Your task to perform on an android device: show emergency info Image 0: 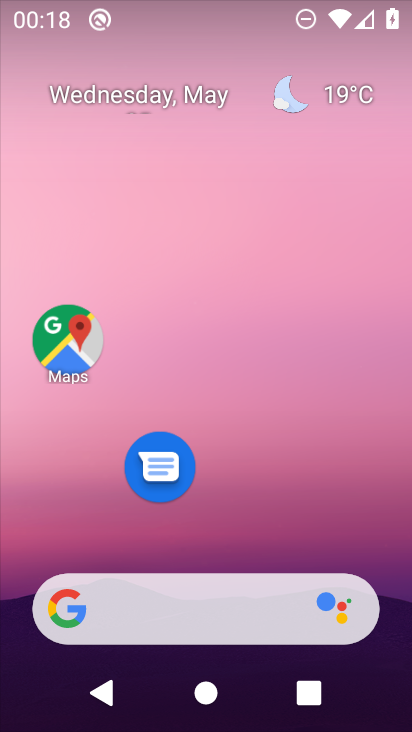
Step 0: drag from (220, 421) to (275, 45)
Your task to perform on an android device: show emergency info Image 1: 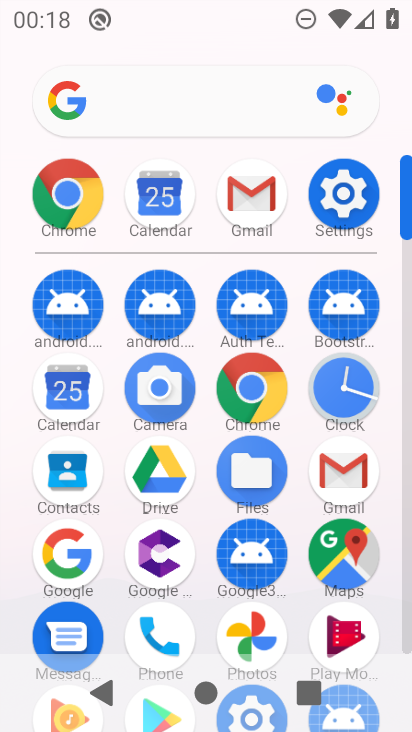
Step 1: click (340, 179)
Your task to perform on an android device: show emergency info Image 2: 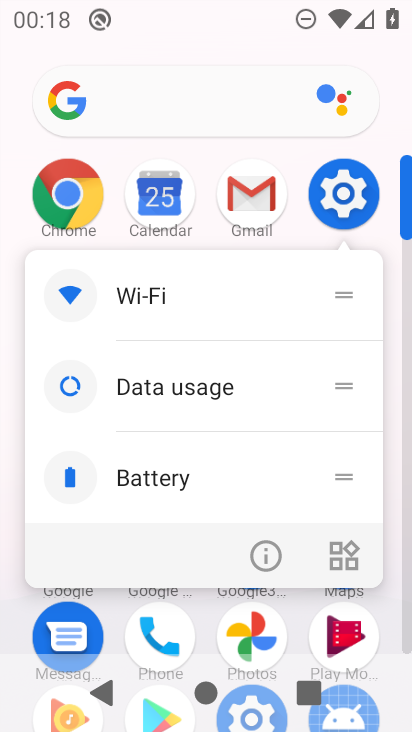
Step 2: click (263, 539)
Your task to perform on an android device: show emergency info Image 3: 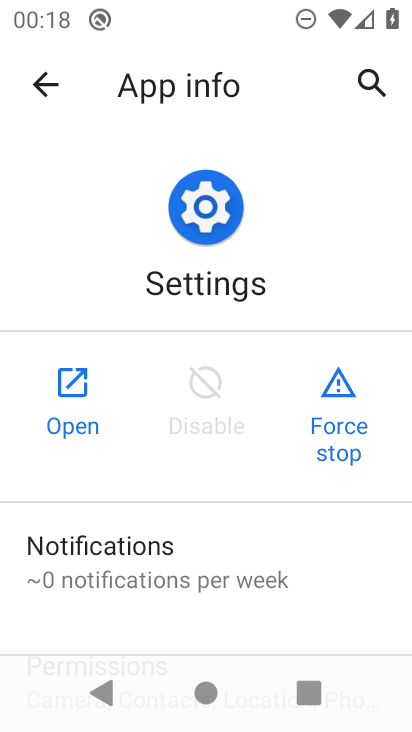
Step 3: click (76, 390)
Your task to perform on an android device: show emergency info Image 4: 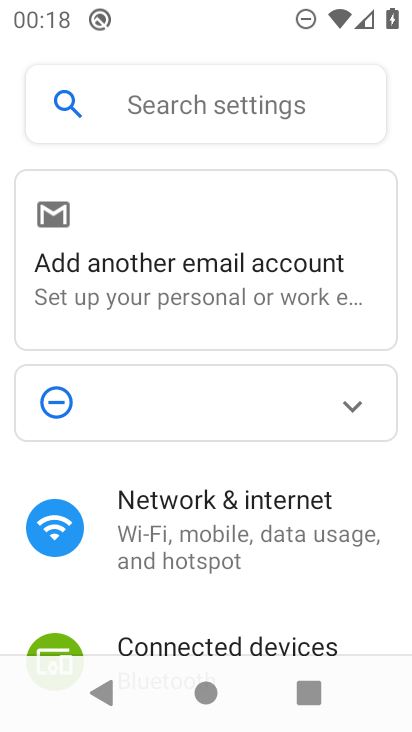
Step 4: drag from (191, 563) to (354, 107)
Your task to perform on an android device: show emergency info Image 5: 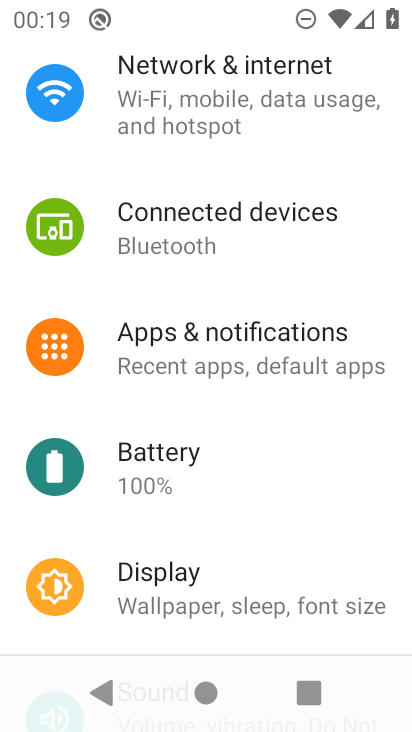
Step 5: drag from (233, 546) to (288, 200)
Your task to perform on an android device: show emergency info Image 6: 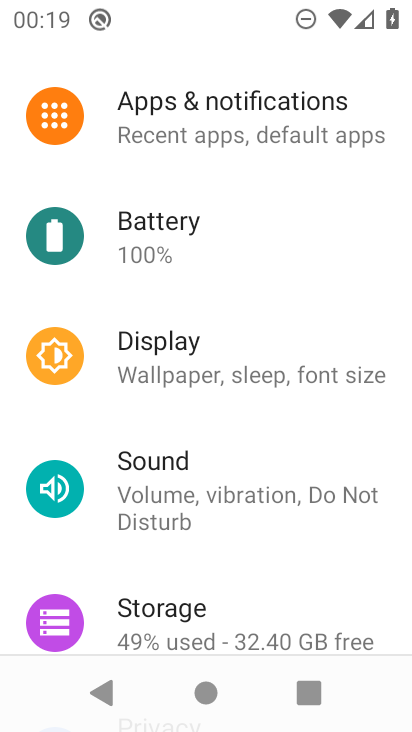
Step 6: drag from (196, 576) to (272, 177)
Your task to perform on an android device: show emergency info Image 7: 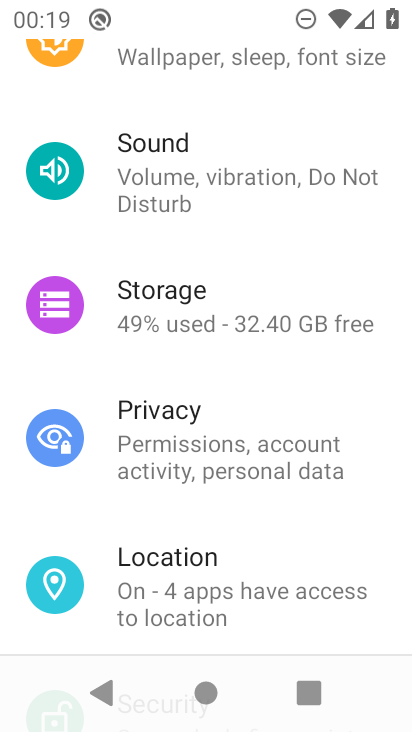
Step 7: drag from (203, 589) to (253, 219)
Your task to perform on an android device: show emergency info Image 8: 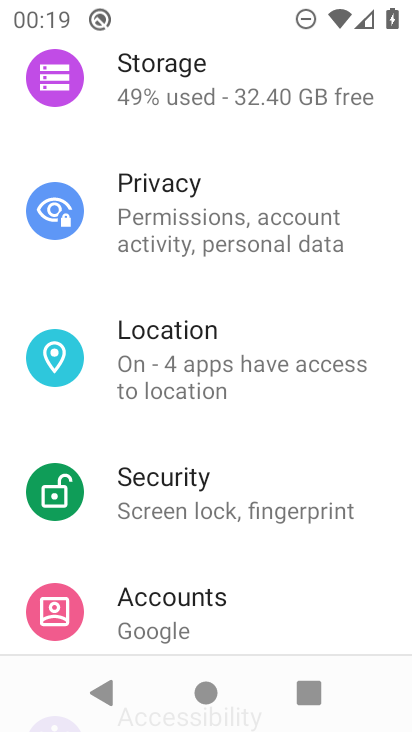
Step 8: drag from (253, 565) to (330, 207)
Your task to perform on an android device: show emergency info Image 9: 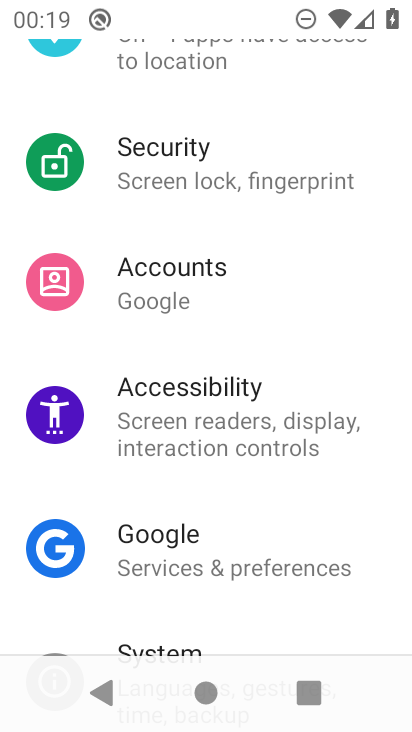
Step 9: drag from (240, 599) to (235, 87)
Your task to perform on an android device: show emergency info Image 10: 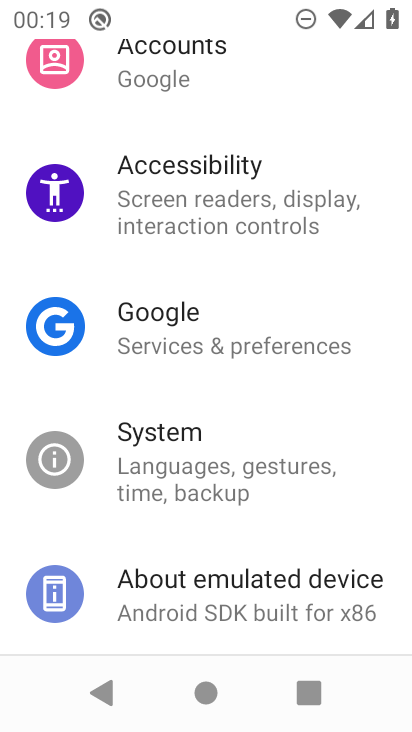
Step 10: click (199, 562)
Your task to perform on an android device: show emergency info Image 11: 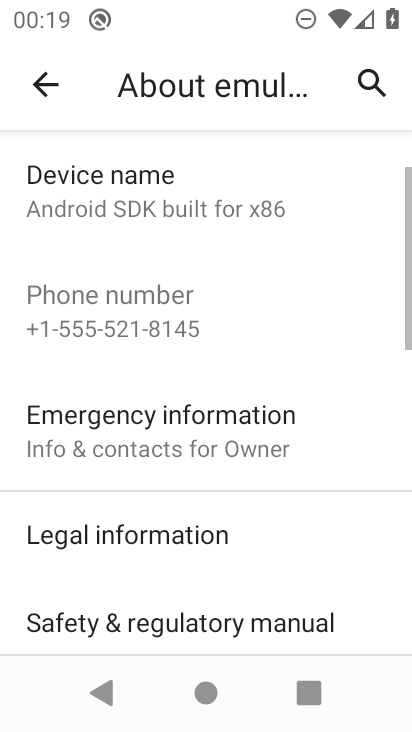
Step 11: drag from (275, 589) to (290, 202)
Your task to perform on an android device: show emergency info Image 12: 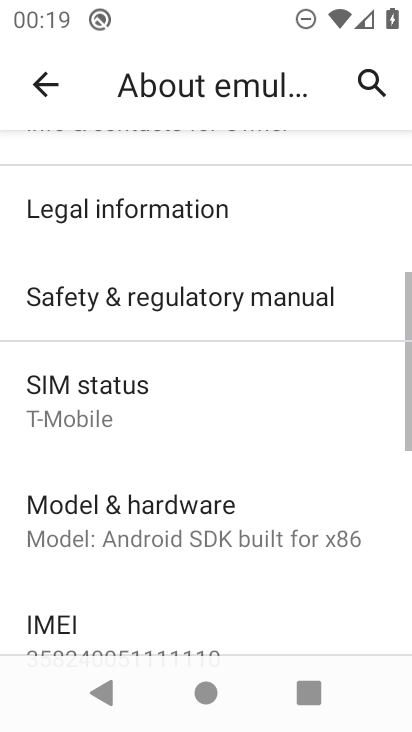
Step 12: drag from (219, 539) to (232, 258)
Your task to perform on an android device: show emergency info Image 13: 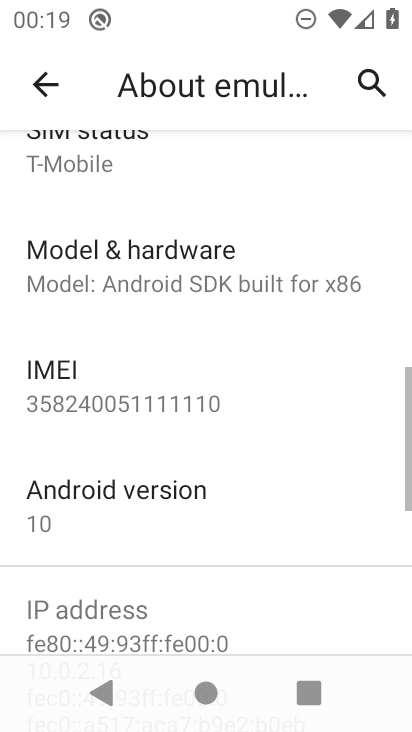
Step 13: drag from (234, 246) to (293, 728)
Your task to perform on an android device: show emergency info Image 14: 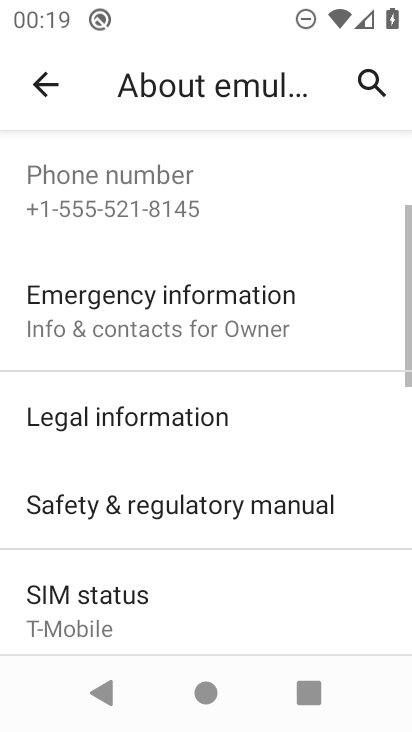
Step 14: click (183, 290)
Your task to perform on an android device: show emergency info Image 15: 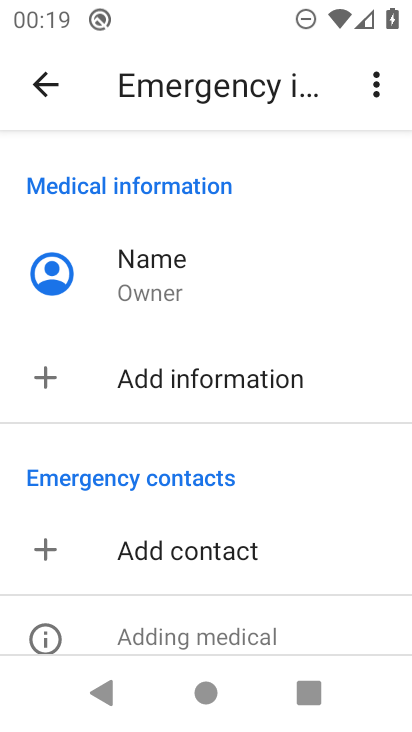
Step 15: task complete